Your task to perform on an android device: Show me the alarms in the clock app Image 0: 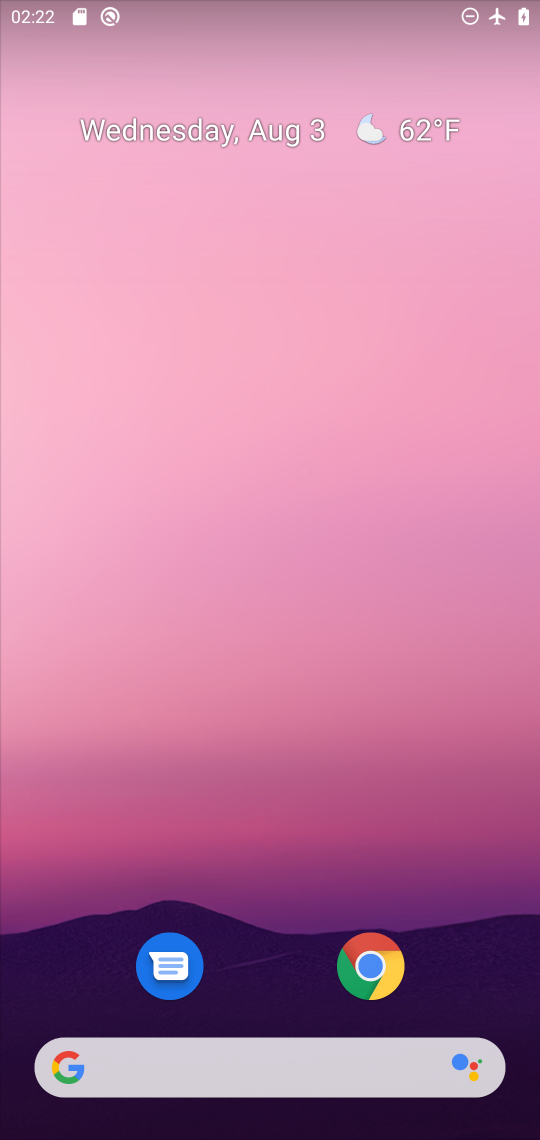
Step 0: drag from (273, 965) to (300, 330)
Your task to perform on an android device: Show me the alarms in the clock app Image 1: 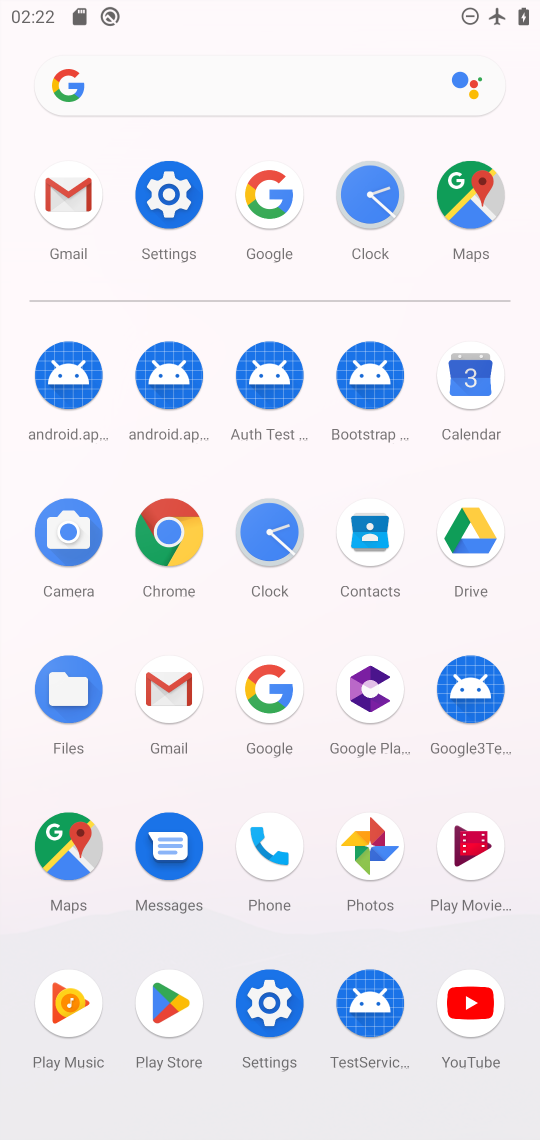
Step 1: click (344, 205)
Your task to perform on an android device: Show me the alarms in the clock app Image 2: 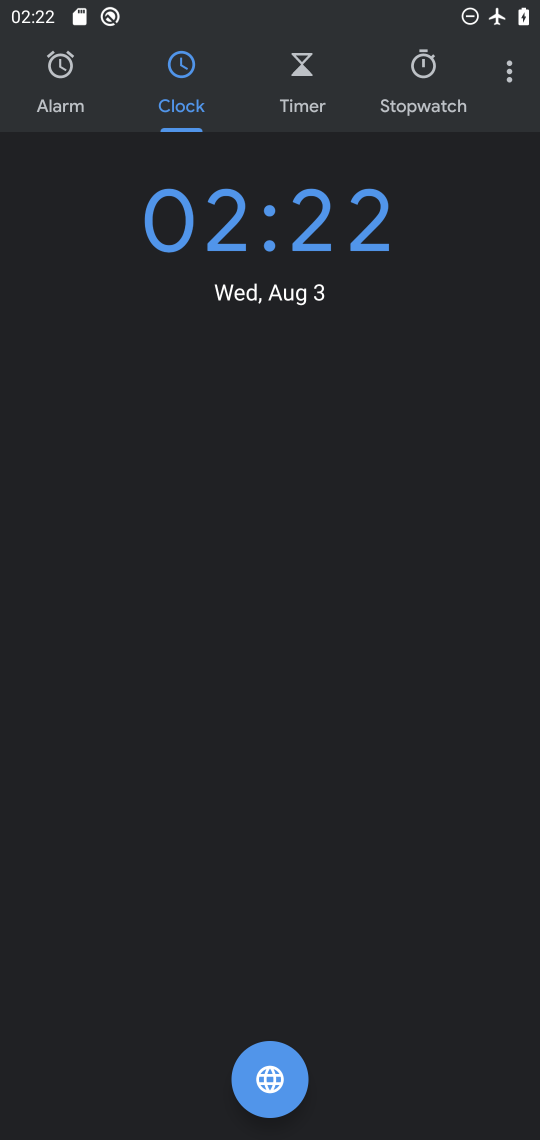
Step 2: click (505, 87)
Your task to perform on an android device: Show me the alarms in the clock app Image 3: 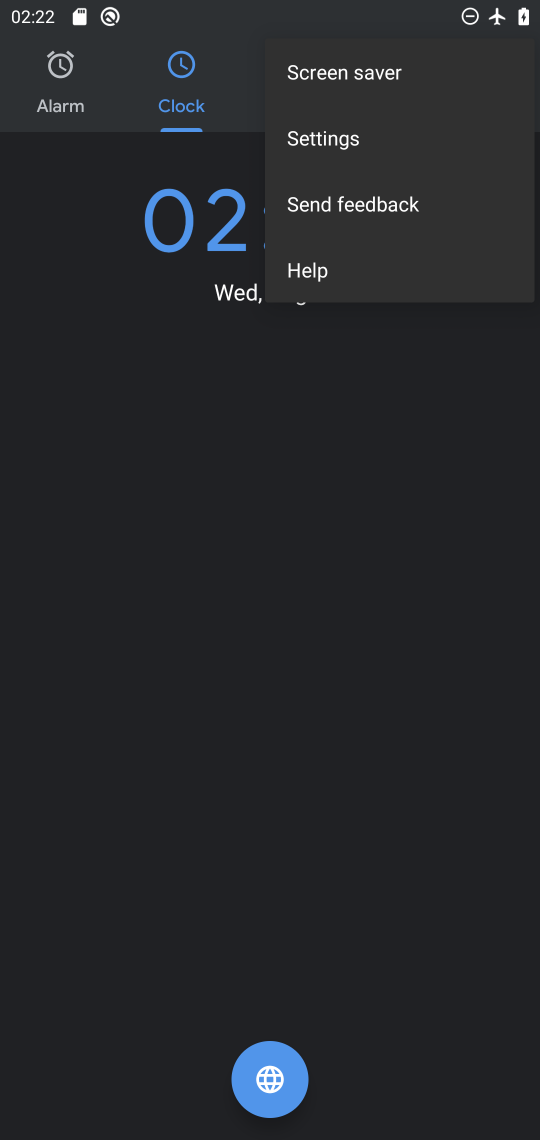
Step 3: click (56, 54)
Your task to perform on an android device: Show me the alarms in the clock app Image 4: 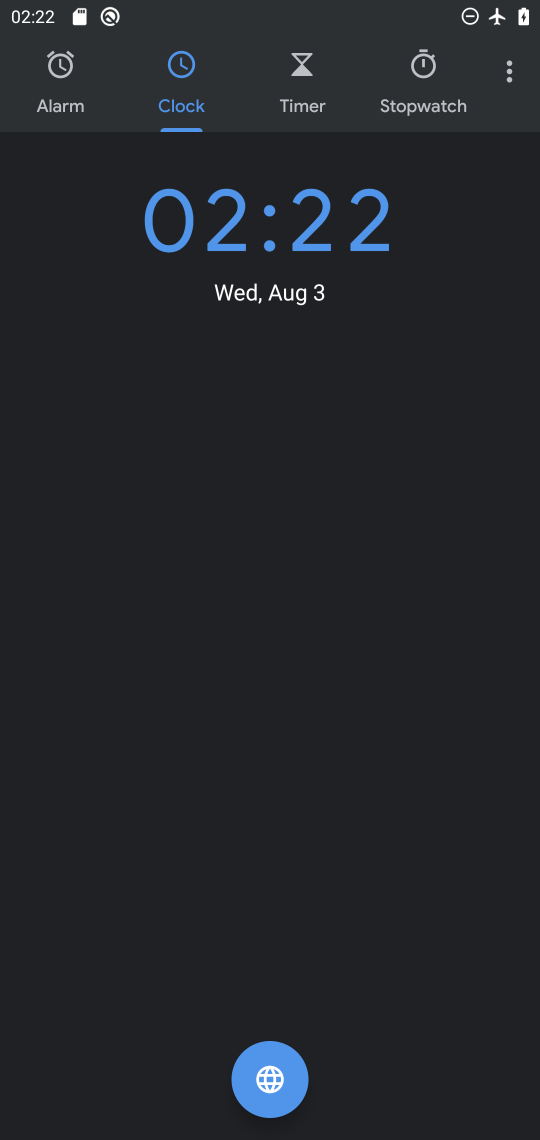
Step 4: click (56, 54)
Your task to perform on an android device: Show me the alarms in the clock app Image 5: 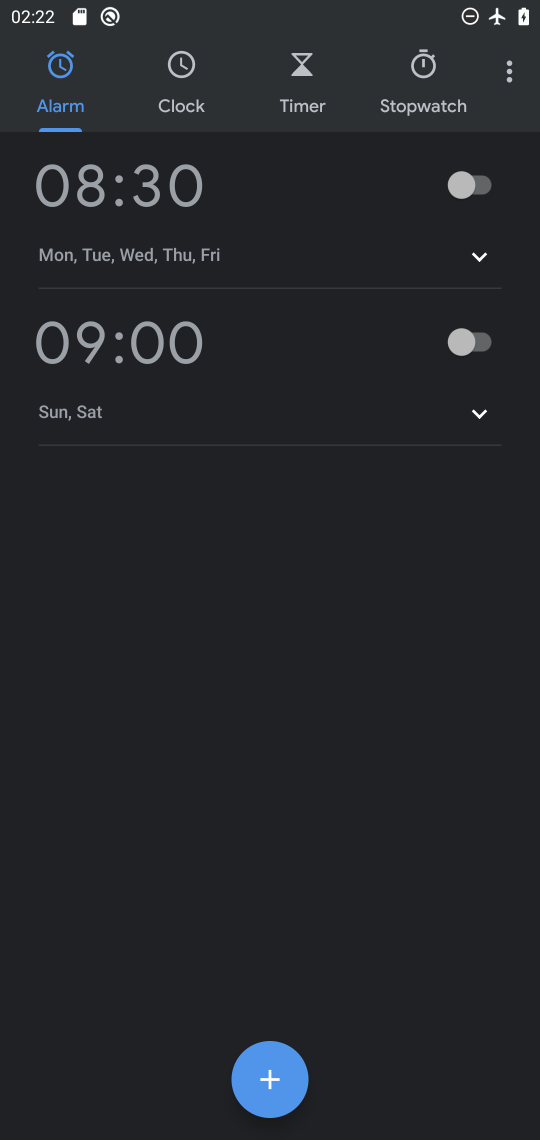
Step 5: task complete